Your task to perform on an android device: find which apps use the phone's location Image 0: 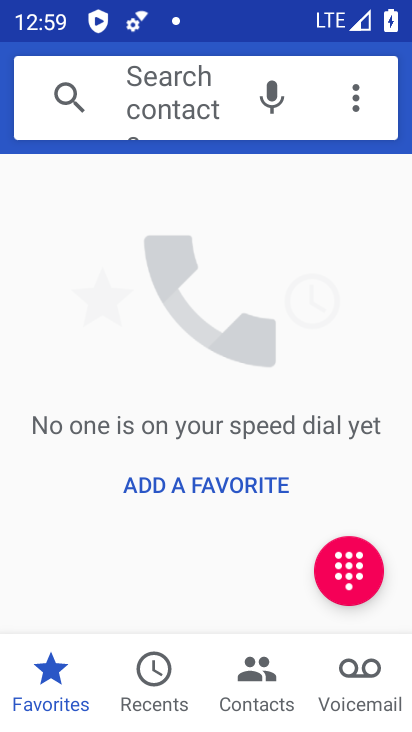
Step 0: press home button
Your task to perform on an android device: find which apps use the phone's location Image 1: 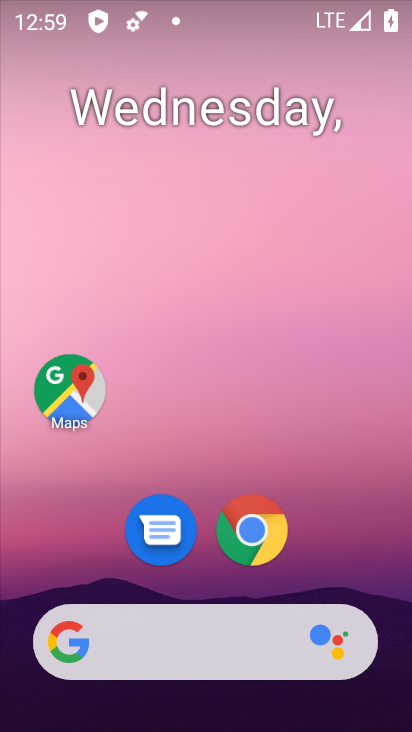
Step 1: drag from (341, 542) to (291, 125)
Your task to perform on an android device: find which apps use the phone's location Image 2: 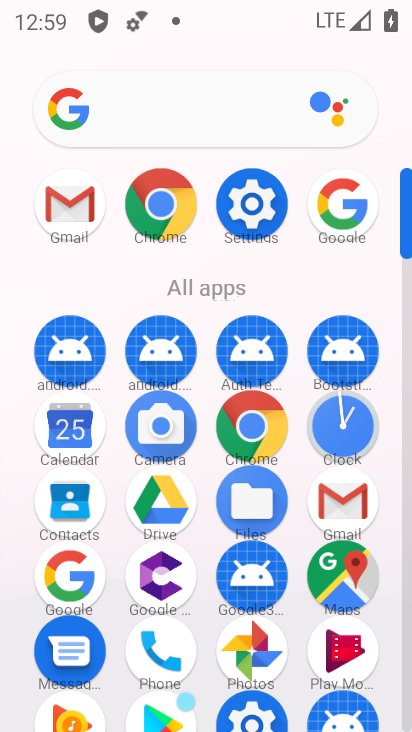
Step 2: click (264, 218)
Your task to perform on an android device: find which apps use the phone's location Image 3: 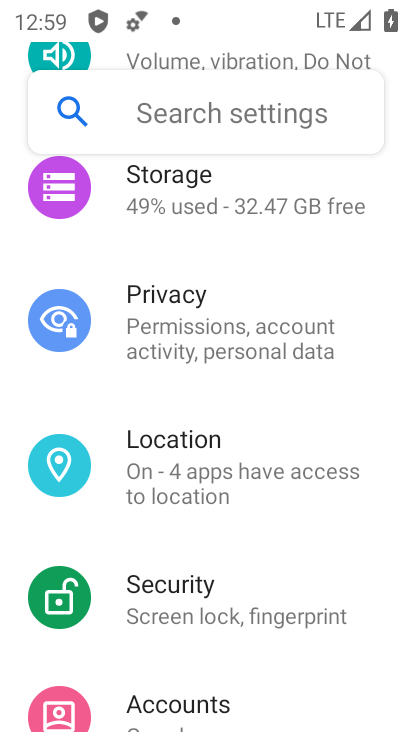
Step 3: drag from (321, 665) to (329, 310)
Your task to perform on an android device: find which apps use the phone's location Image 4: 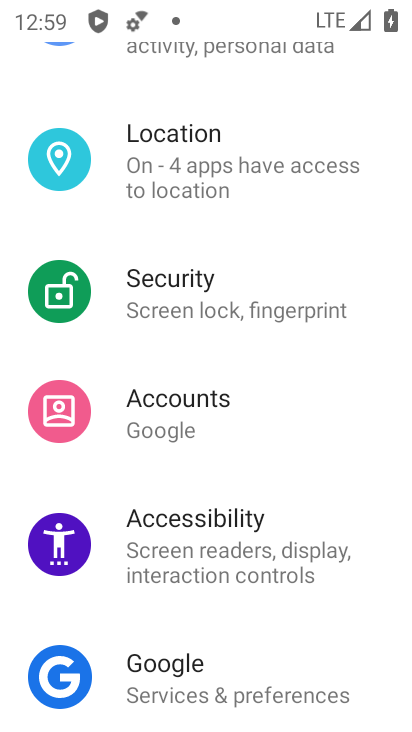
Step 4: click (213, 163)
Your task to perform on an android device: find which apps use the phone's location Image 5: 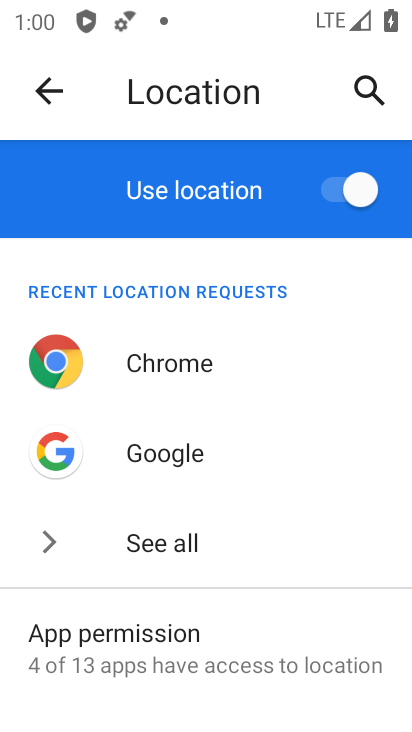
Step 5: task complete